Your task to perform on an android device: turn off translation in the chrome app Image 0: 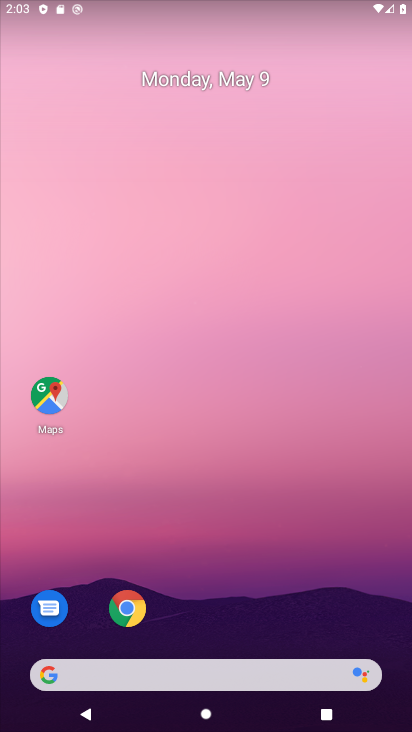
Step 0: click (124, 605)
Your task to perform on an android device: turn off translation in the chrome app Image 1: 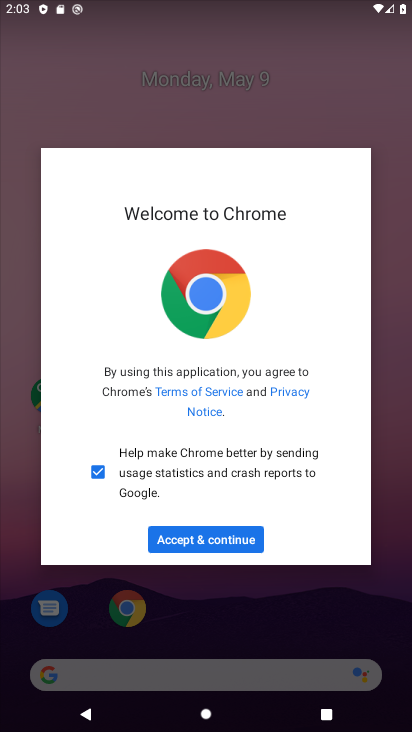
Step 1: click (208, 540)
Your task to perform on an android device: turn off translation in the chrome app Image 2: 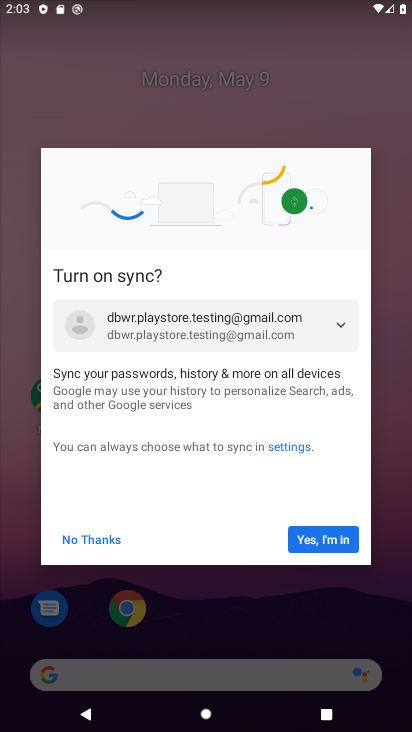
Step 2: click (341, 540)
Your task to perform on an android device: turn off translation in the chrome app Image 3: 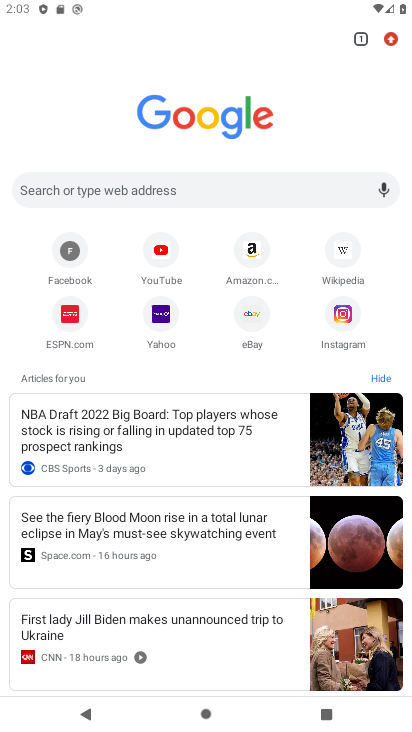
Step 3: click (395, 42)
Your task to perform on an android device: turn off translation in the chrome app Image 4: 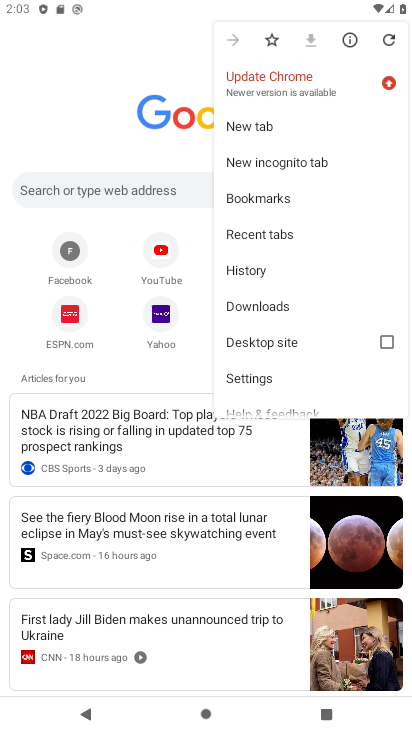
Step 4: click (262, 388)
Your task to perform on an android device: turn off translation in the chrome app Image 5: 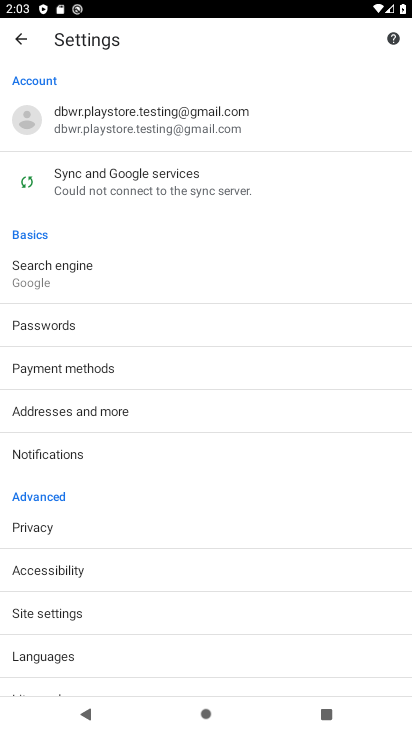
Step 5: click (72, 657)
Your task to perform on an android device: turn off translation in the chrome app Image 6: 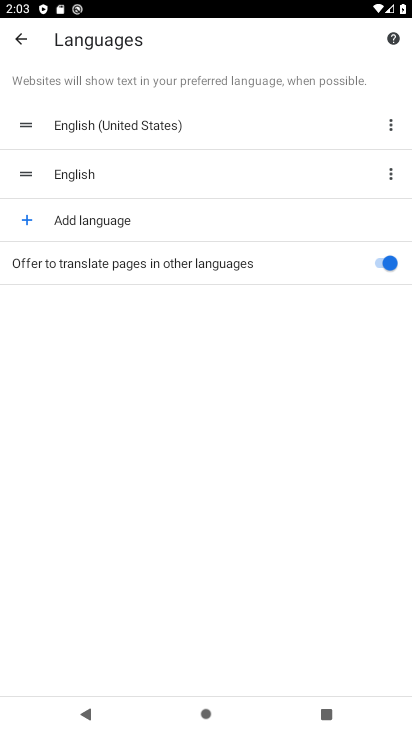
Step 6: click (385, 266)
Your task to perform on an android device: turn off translation in the chrome app Image 7: 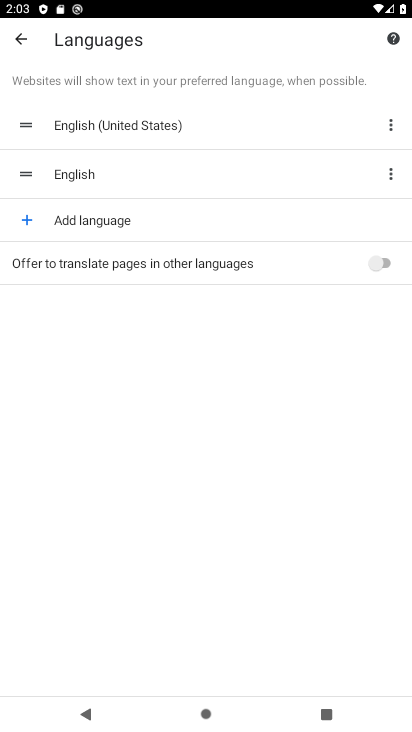
Step 7: task complete